Your task to perform on an android device: open chrome privacy settings Image 0: 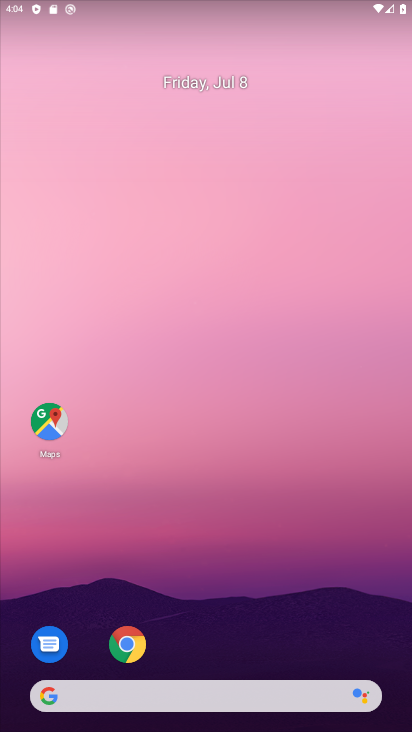
Step 0: click (140, 634)
Your task to perform on an android device: open chrome privacy settings Image 1: 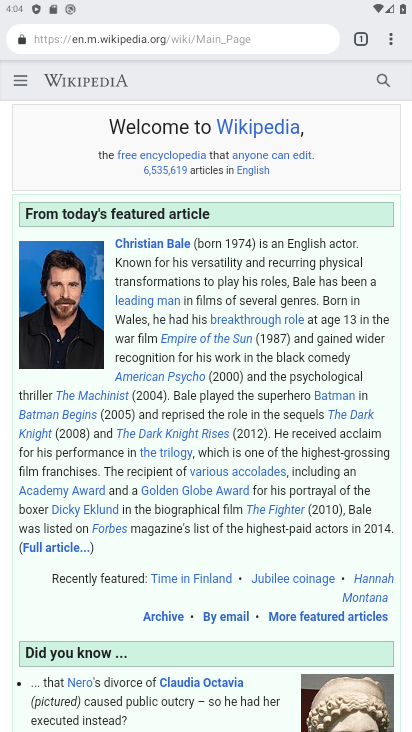
Step 1: click (387, 37)
Your task to perform on an android device: open chrome privacy settings Image 2: 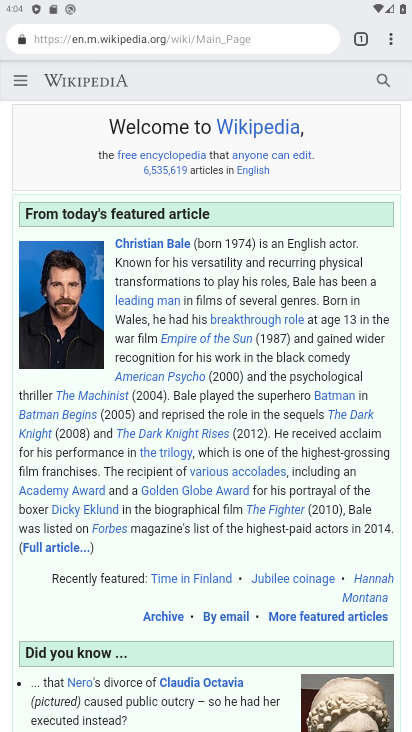
Step 2: click (387, 37)
Your task to perform on an android device: open chrome privacy settings Image 3: 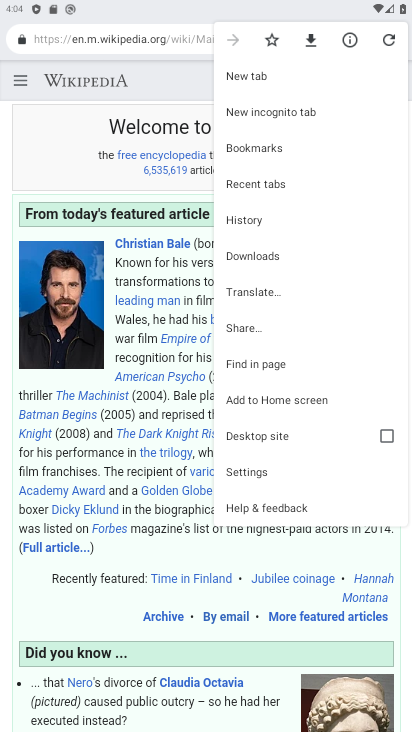
Step 3: click (261, 479)
Your task to perform on an android device: open chrome privacy settings Image 4: 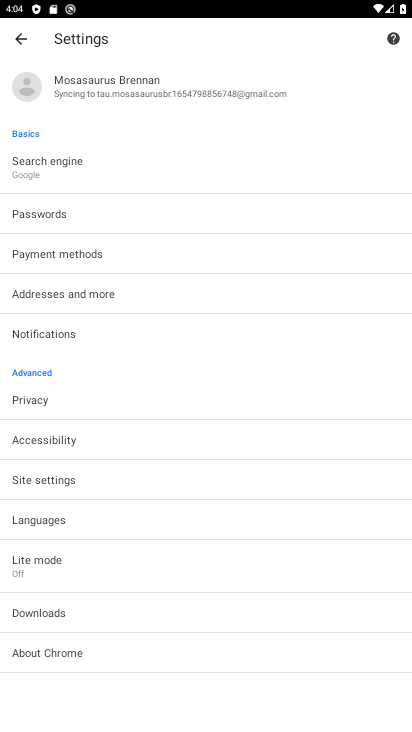
Step 4: click (55, 407)
Your task to perform on an android device: open chrome privacy settings Image 5: 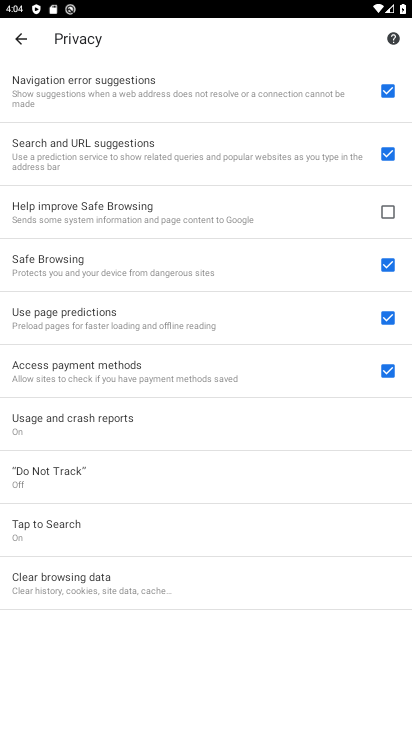
Step 5: task complete